Your task to perform on an android device: turn on the 24-hour format for clock Image 0: 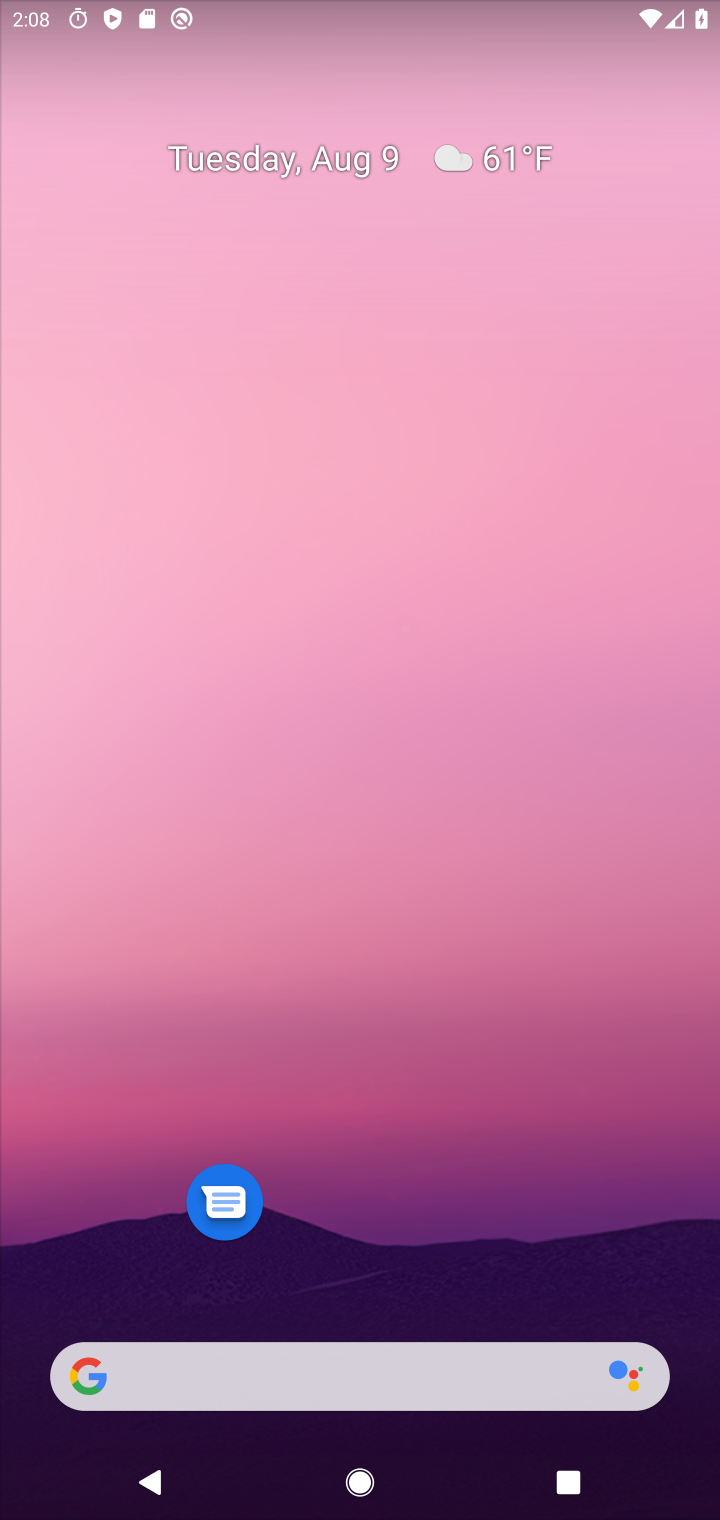
Step 0: drag from (406, 1349) to (295, 91)
Your task to perform on an android device: turn on the 24-hour format for clock Image 1: 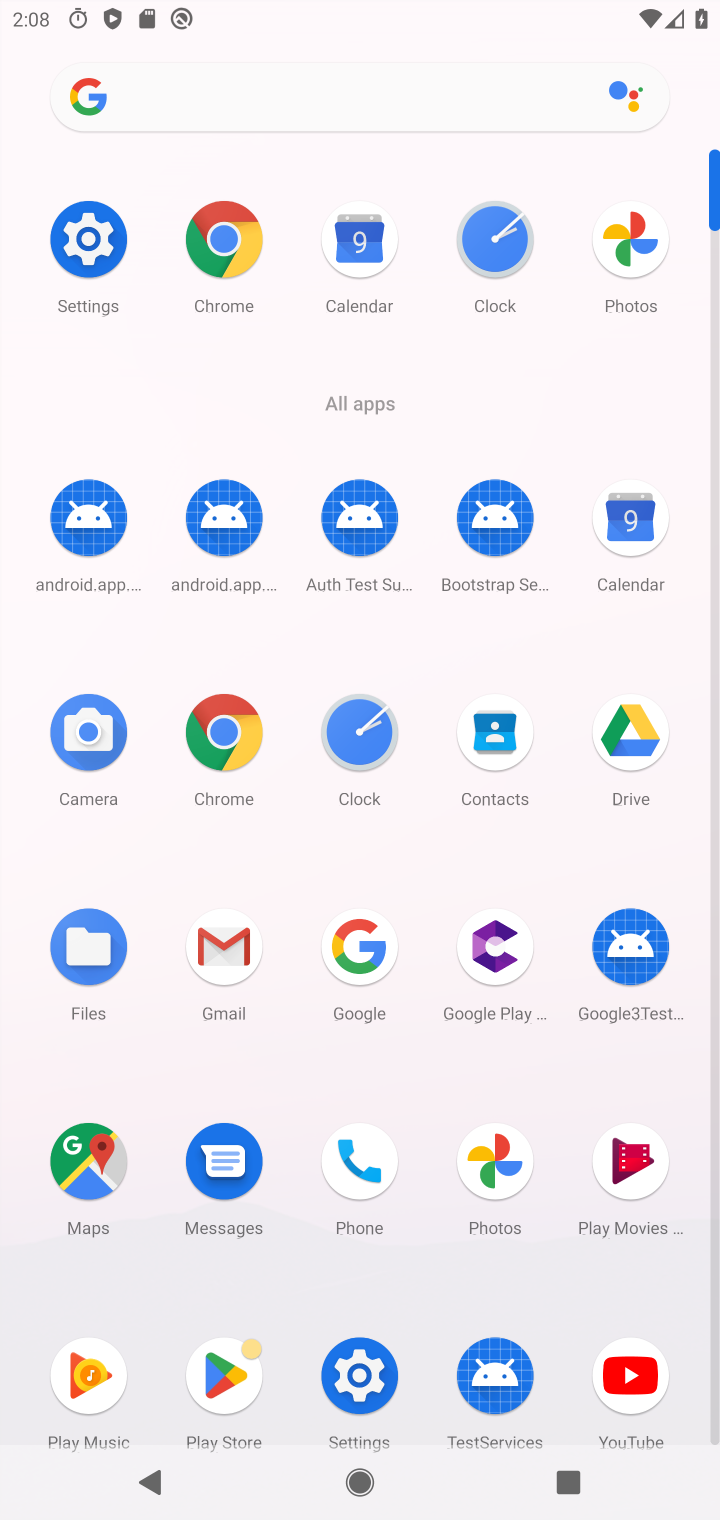
Step 1: click (314, 705)
Your task to perform on an android device: turn on the 24-hour format for clock Image 2: 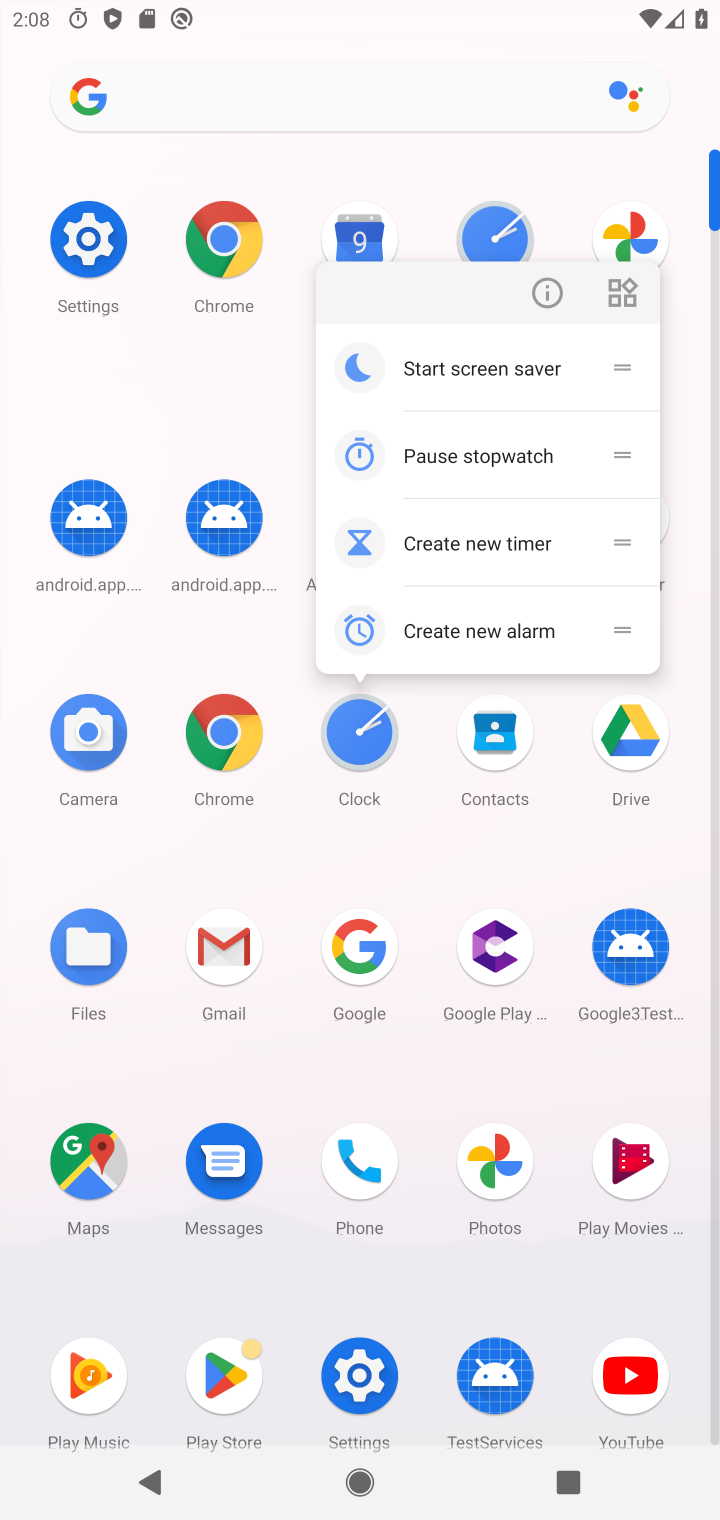
Step 2: click (363, 733)
Your task to perform on an android device: turn on the 24-hour format for clock Image 3: 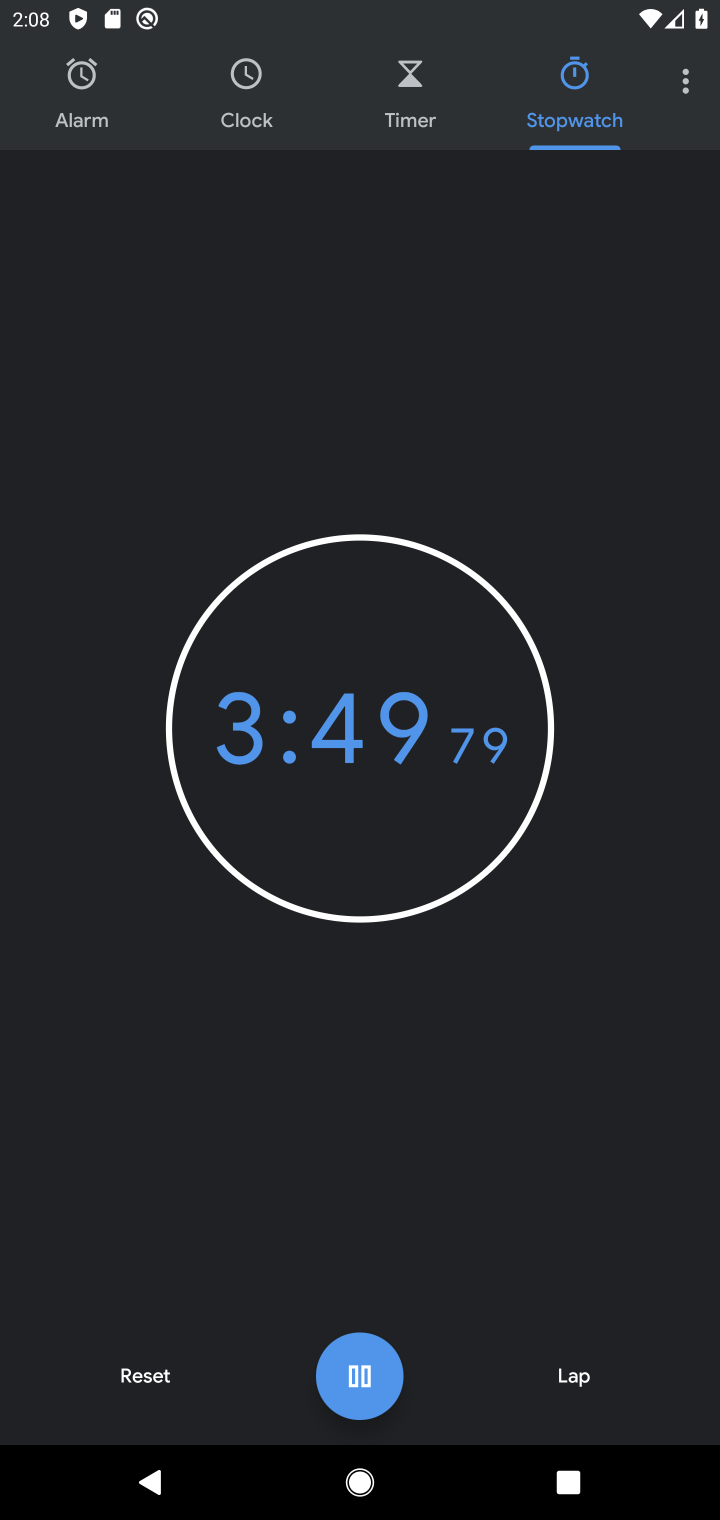
Step 3: click (690, 72)
Your task to perform on an android device: turn on the 24-hour format for clock Image 4: 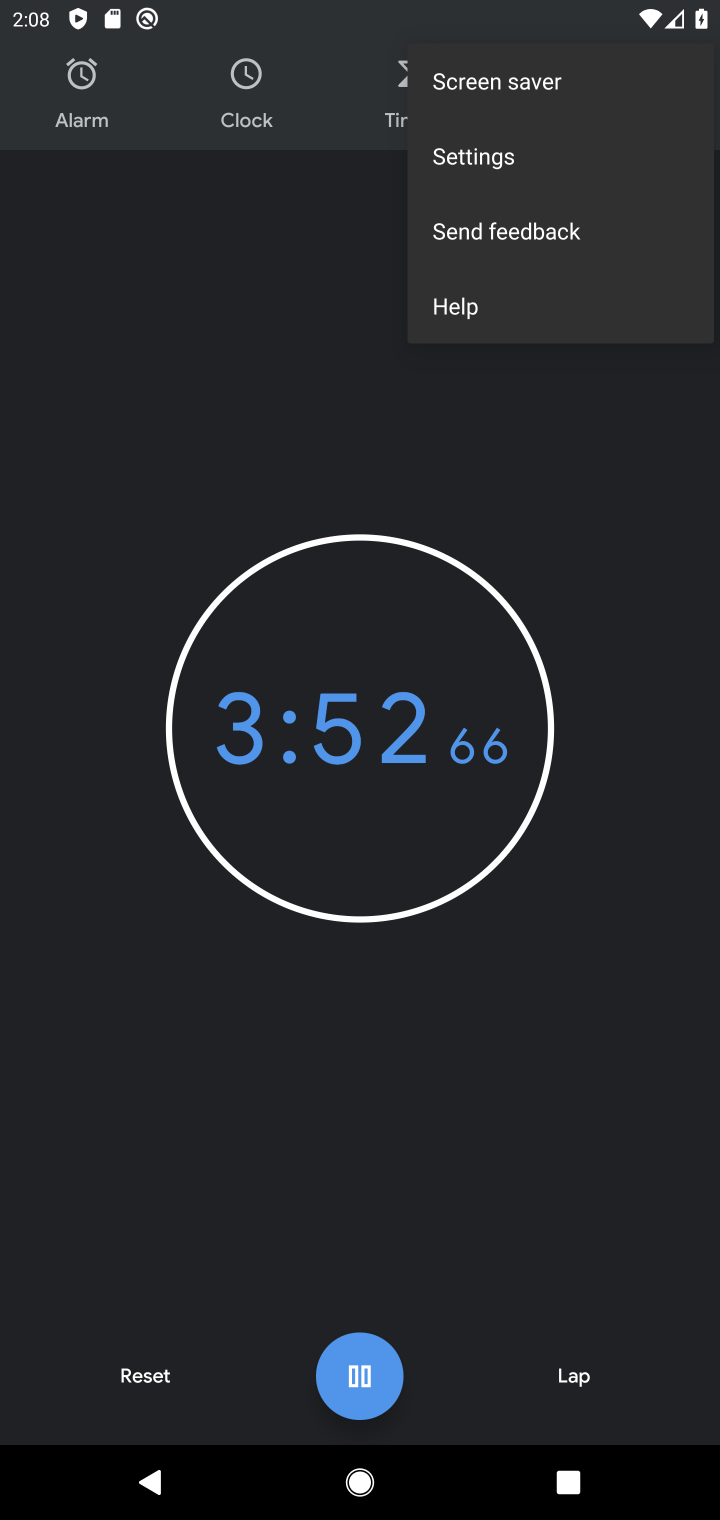
Step 4: click (532, 171)
Your task to perform on an android device: turn on the 24-hour format for clock Image 5: 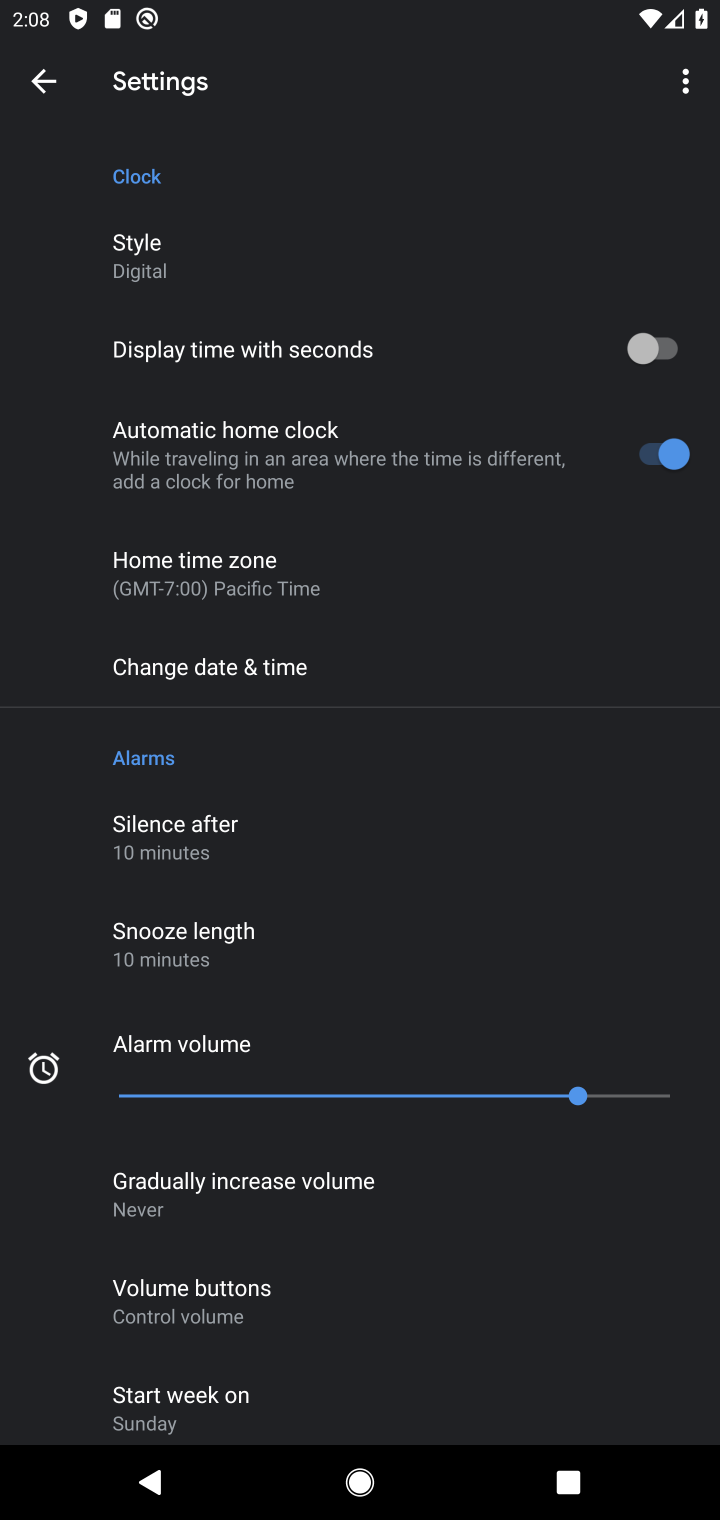
Step 5: click (316, 653)
Your task to perform on an android device: turn on the 24-hour format for clock Image 6: 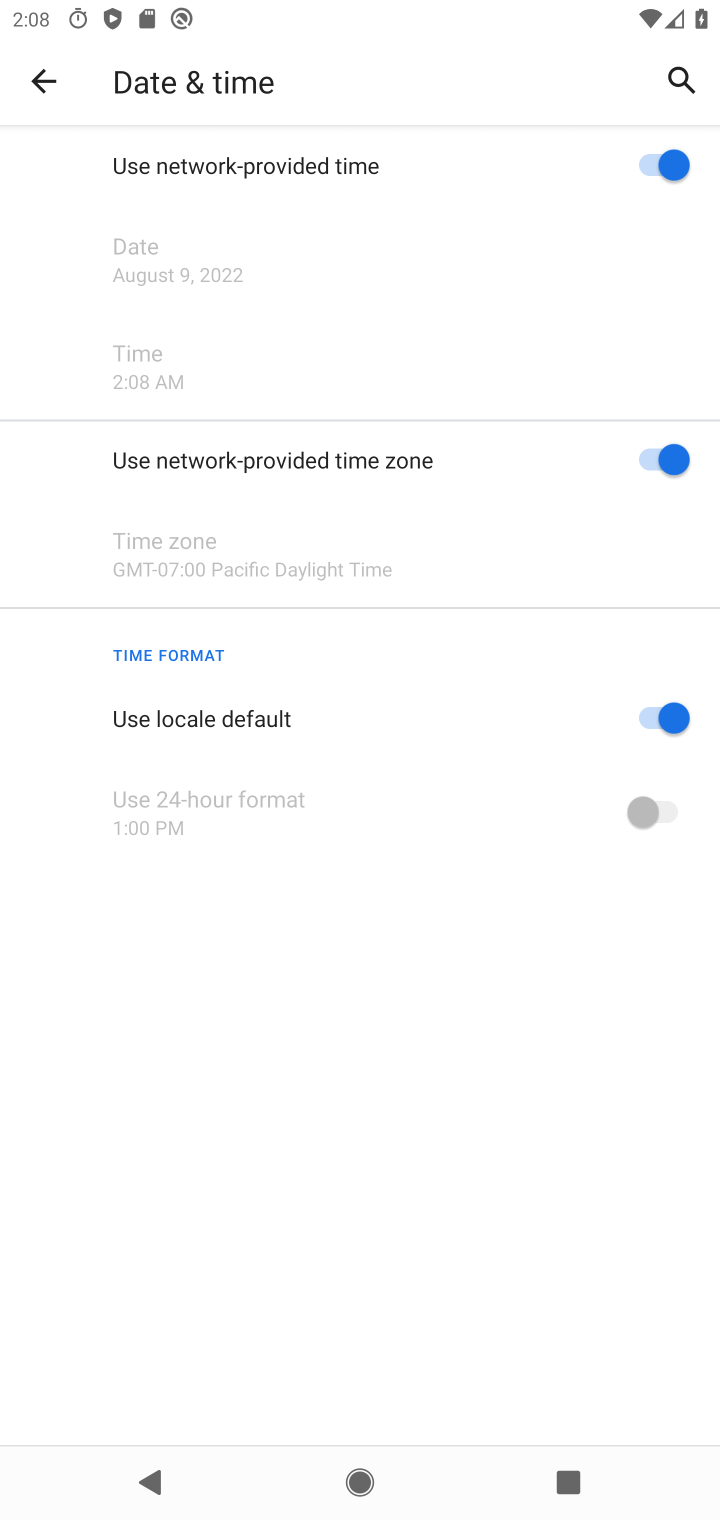
Step 6: click (654, 705)
Your task to perform on an android device: turn on the 24-hour format for clock Image 7: 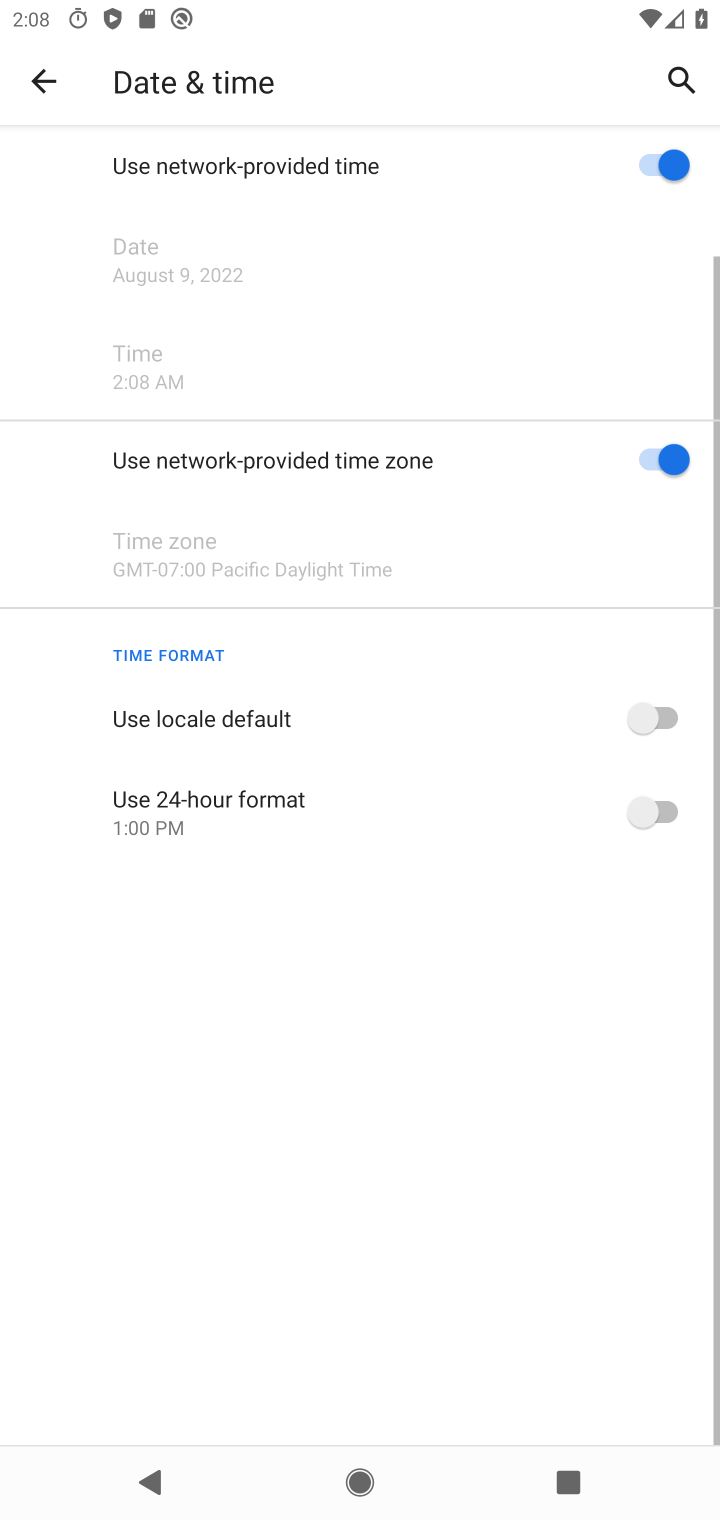
Step 7: click (656, 806)
Your task to perform on an android device: turn on the 24-hour format for clock Image 8: 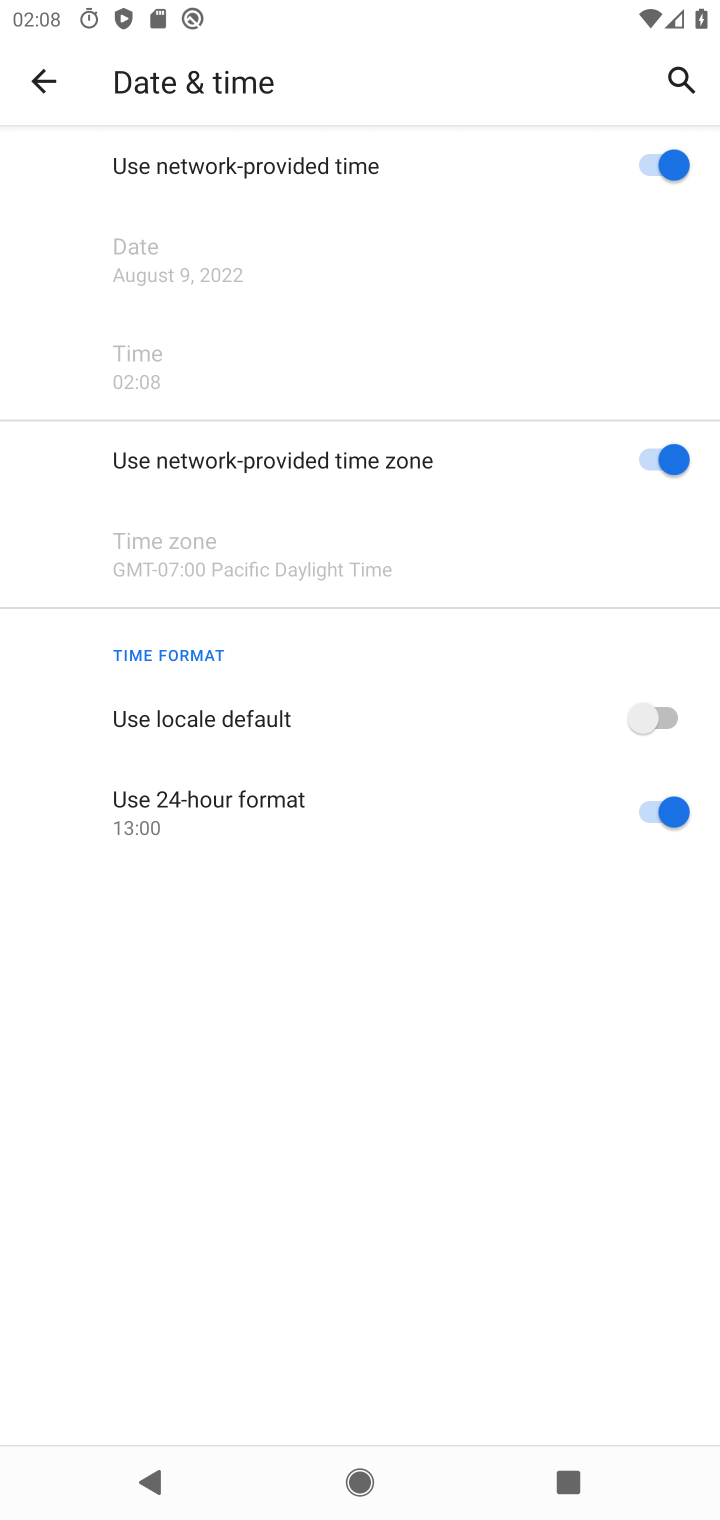
Step 8: task complete